Your task to perform on an android device: turn off data saver in the chrome app Image 0: 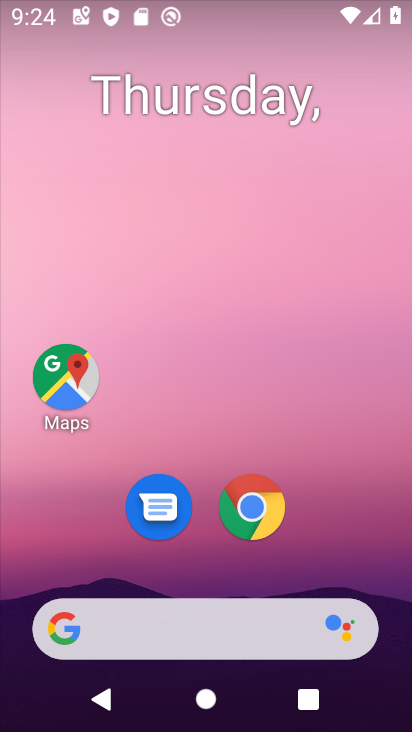
Step 0: click (260, 517)
Your task to perform on an android device: turn off data saver in the chrome app Image 1: 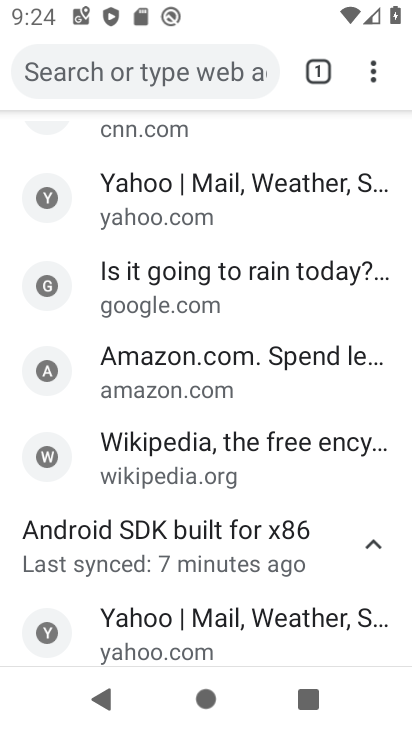
Step 1: click (369, 83)
Your task to perform on an android device: turn off data saver in the chrome app Image 2: 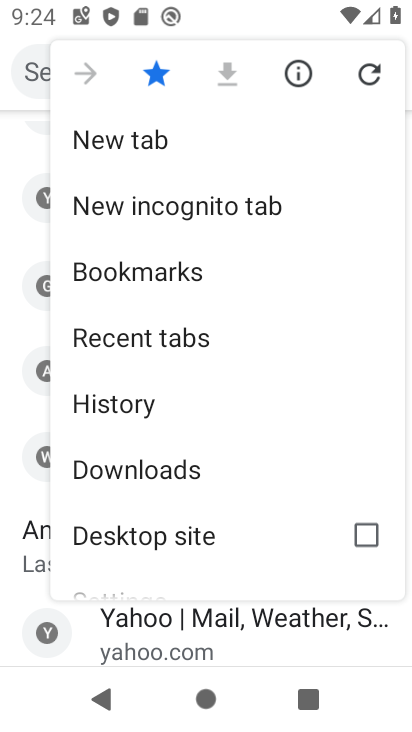
Step 2: drag from (148, 508) to (194, 205)
Your task to perform on an android device: turn off data saver in the chrome app Image 3: 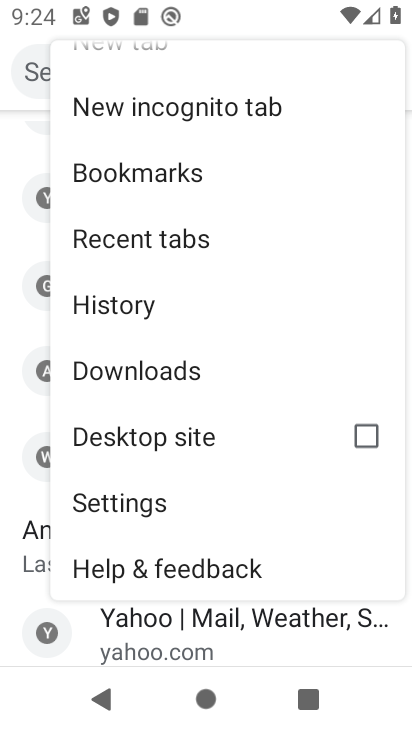
Step 3: click (119, 512)
Your task to perform on an android device: turn off data saver in the chrome app Image 4: 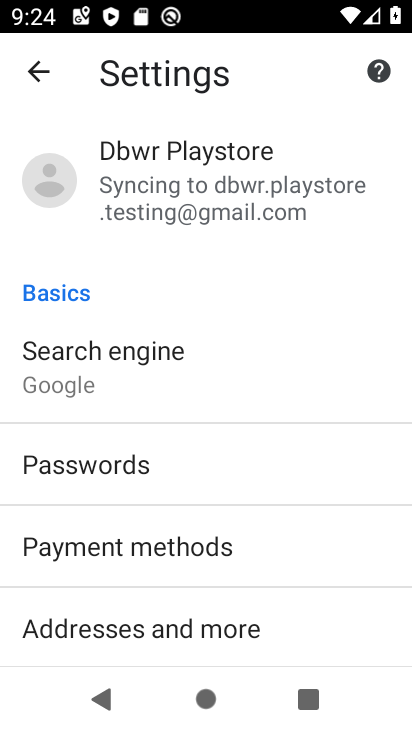
Step 4: drag from (153, 514) to (254, 68)
Your task to perform on an android device: turn off data saver in the chrome app Image 5: 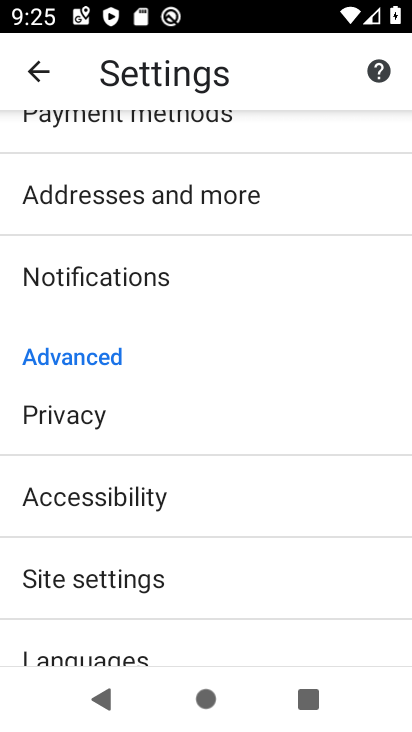
Step 5: drag from (149, 559) to (257, 117)
Your task to perform on an android device: turn off data saver in the chrome app Image 6: 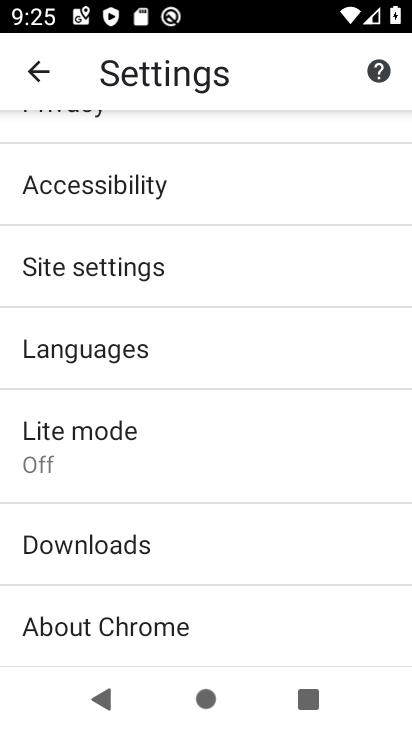
Step 6: click (138, 457)
Your task to perform on an android device: turn off data saver in the chrome app Image 7: 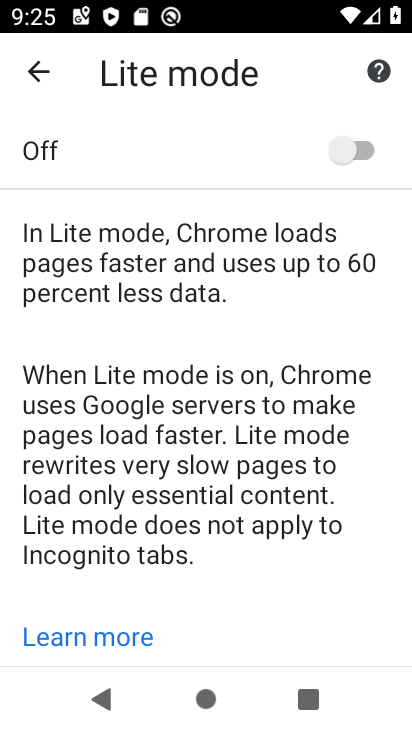
Step 7: task complete